Your task to perform on an android device: make emails show in primary in the gmail app Image 0: 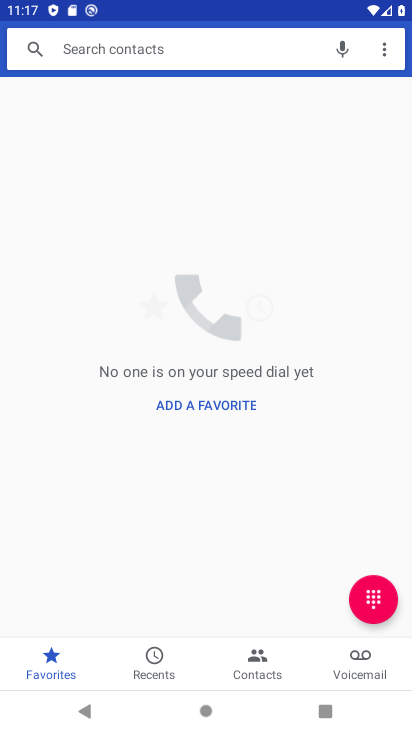
Step 0: press home button
Your task to perform on an android device: make emails show in primary in the gmail app Image 1: 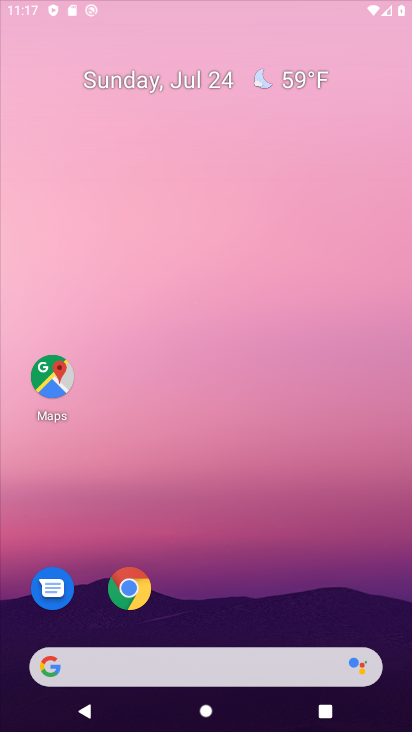
Step 1: drag from (357, 672) to (160, 56)
Your task to perform on an android device: make emails show in primary in the gmail app Image 2: 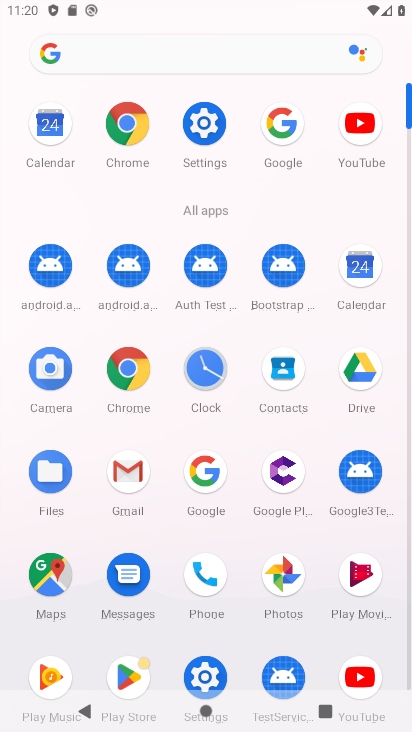
Step 2: click (134, 482)
Your task to perform on an android device: make emails show in primary in the gmail app Image 3: 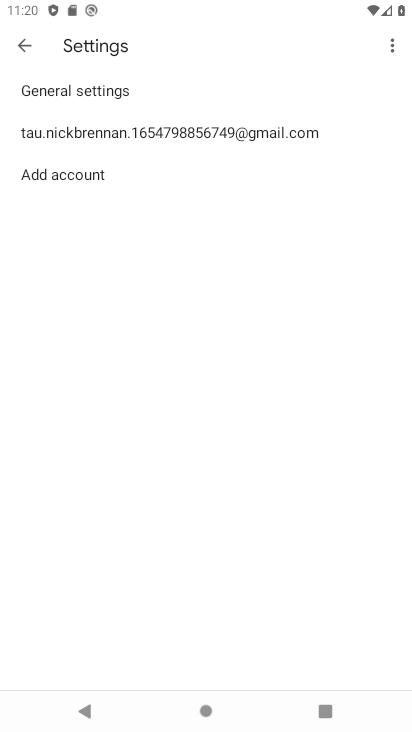
Step 3: press back button
Your task to perform on an android device: make emails show in primary in the gmail app Image 4: 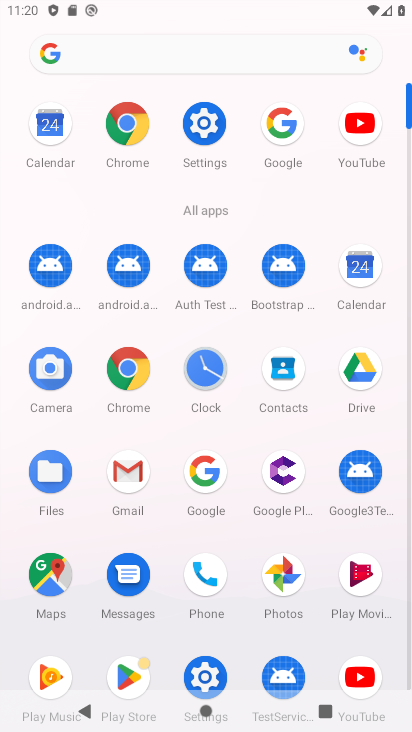
Step 4: click (120, 481)
Your task to perform on an android device: make emails show in primary in the gmail app Image 5: 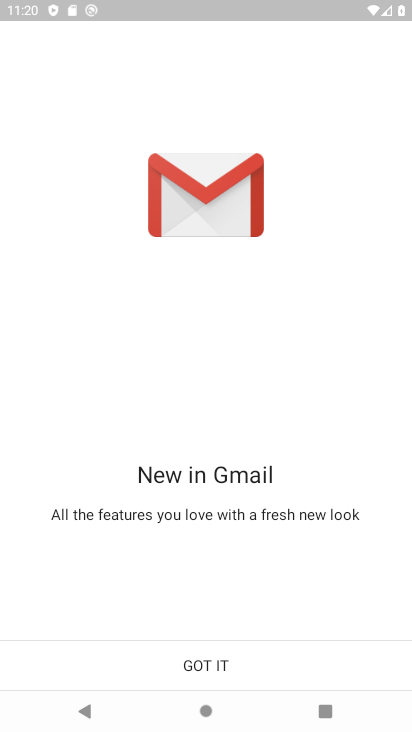
Step 5: click (180, 653)
Your task to perform on an android device: make emails show in primary in the gmail app Image 6: 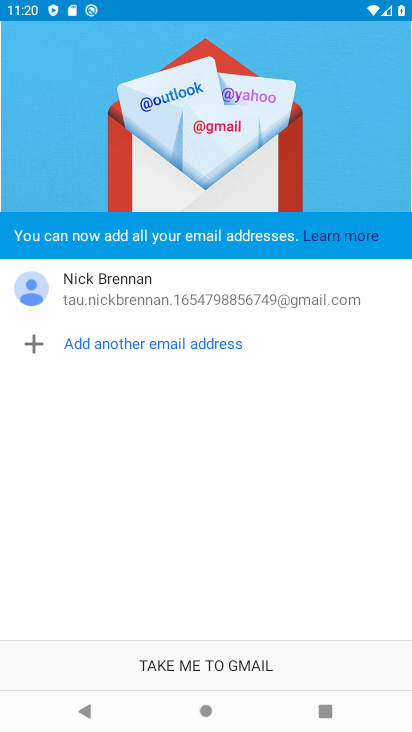
Step 6: click (211, 659)
Your task to perform on an android device: make emails show in primary in the gmail app Image 7: 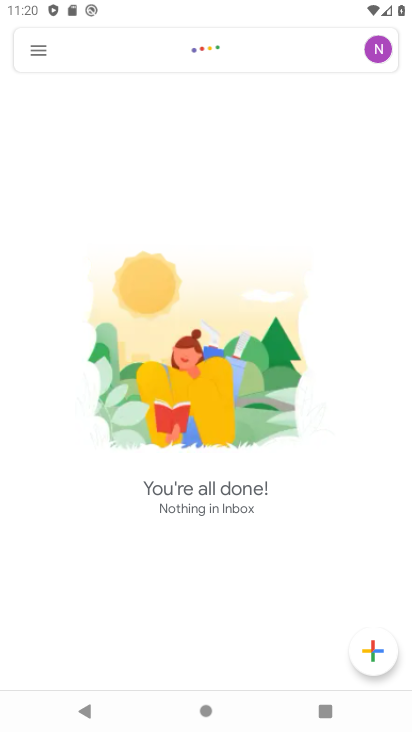
Step 7: task complete